Your task to perform on an android device: toggle show notifications on the lock screen Image 0: 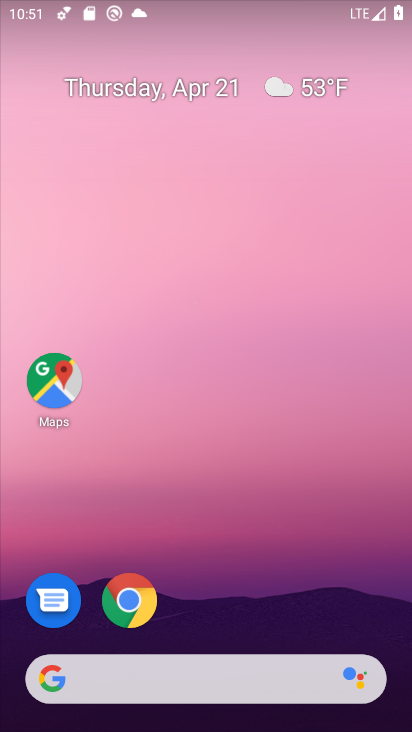
Step 0: drag from (233, 574) to (213, 61)
Your task to perform on an android device: toggle show notifications on the lock screen Image 1: 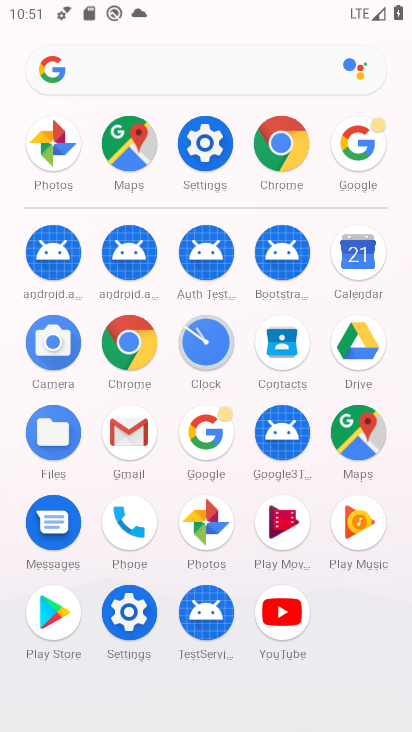
Step 1: click (208, 154)
Your task to perform on an android device: toggle show notifications on the lock screen Image 2: 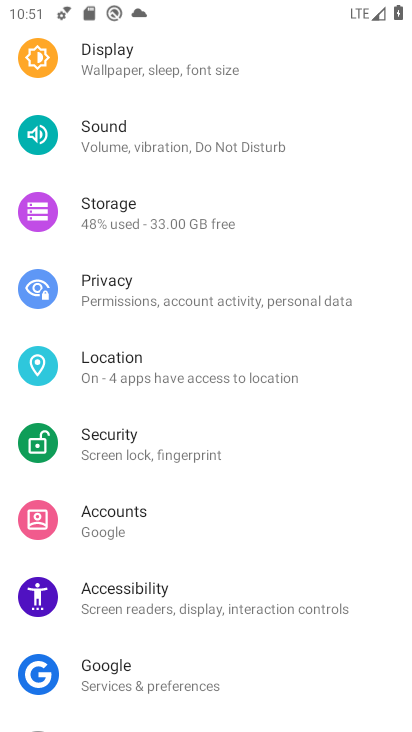
Step 2: drag from (190, 105) to (229, 548)
Your task to perform on an android device: toggle show notifications on the lock screen Image 3: 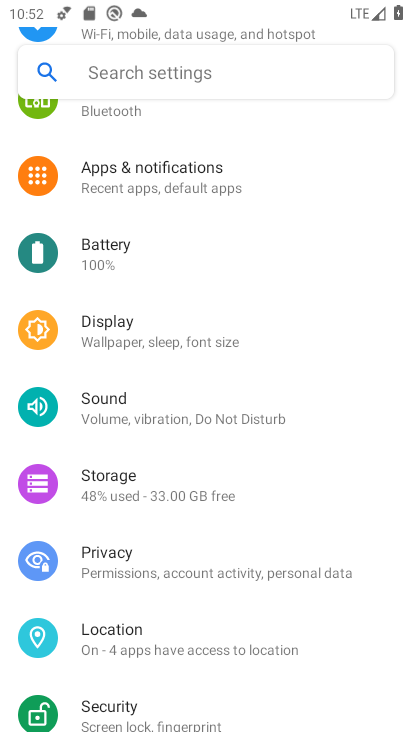
Step 3: click (159, 179)
Your task to perform on an android device: toggle show notifications on the lock screen Image 4: 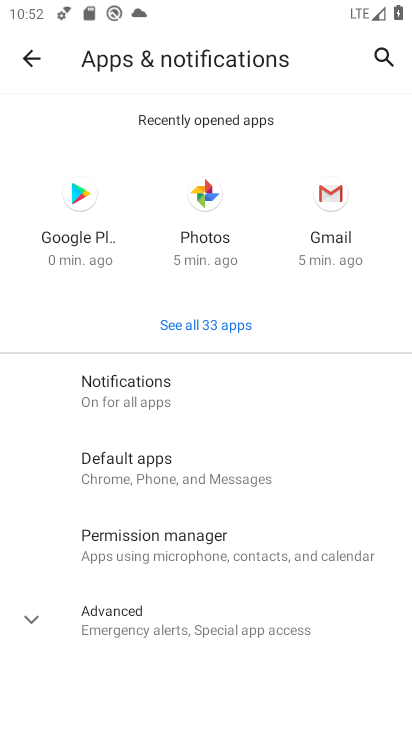
Step 4: click (160, 387)
Your task to perform on an android device: toggle show notifications on the lock screen Image 5: 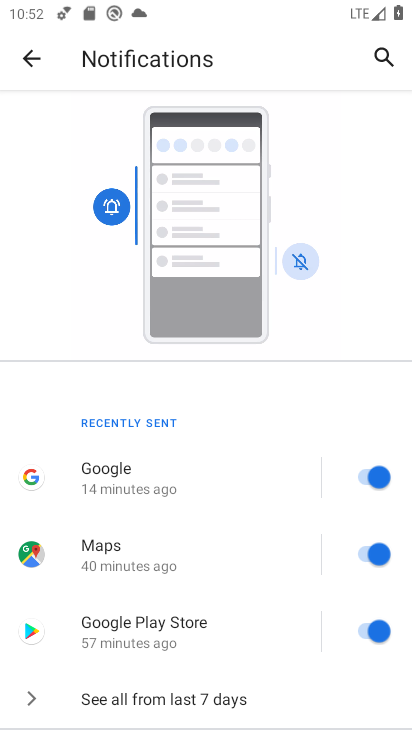
Step 5: drag from (236, 618) to (222, 272)
Your task to perform on an android device: toggle show notifications on the lock screen Image 6: 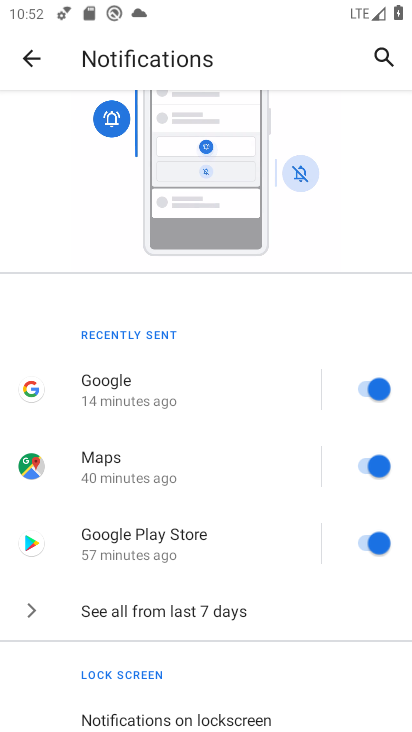
Step 6: drag from (193, 607) to (182, 251)
Your task to perform on an android device: toggle show notifications on the lock screen Image 7: 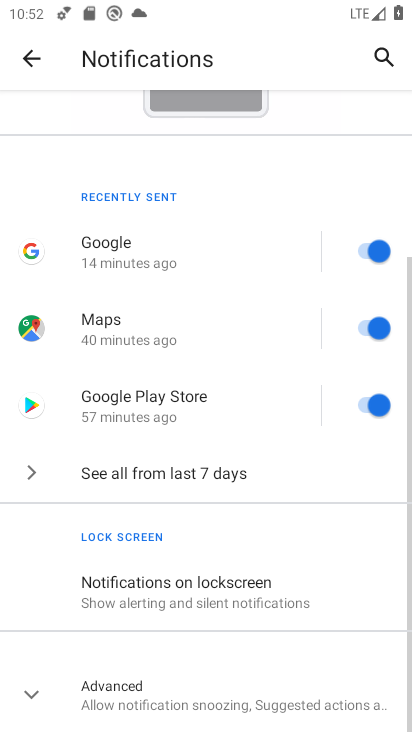
Step 7: click (196, 596)
Your task to perform on an android device: toggle show notifications on the lock screen Image 8: 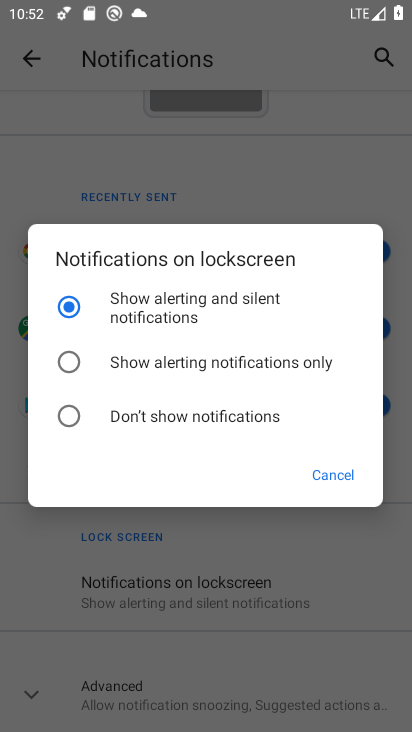
Step 8: click (137, 421)
Your task to perform on an android device: toggle show notifications on the lock screen Image 9: 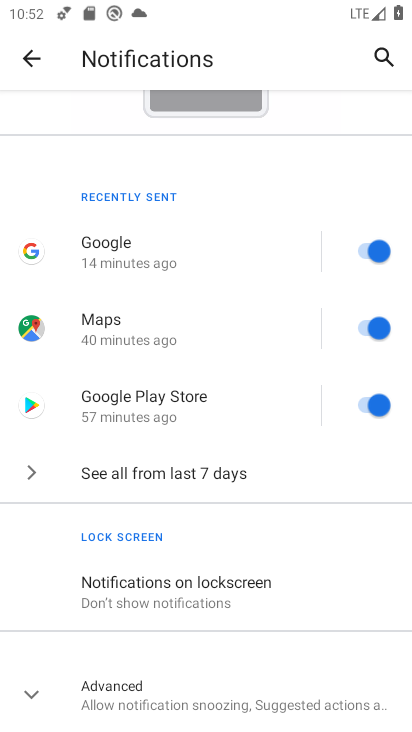
Step 9: task complete